Your task to perform on an android device: turn off smart reply in the gmail app Image 0: 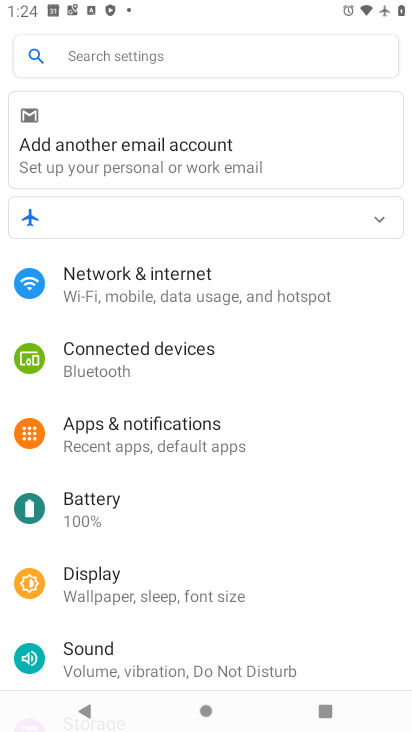
Step 0: drag from (218, 542) to (254, 247)
Your task to perform on an android device: turn off smart reply in the gmail app Image 1: 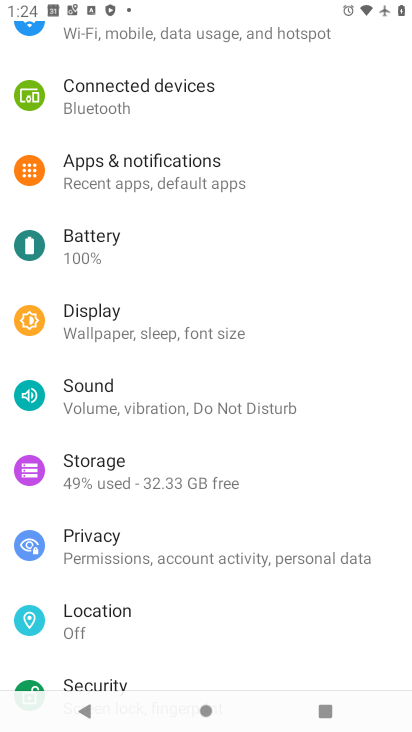
Step 1: press home button
Your task to perform on an android device: turn off smart reply in the gmail app Image 2: 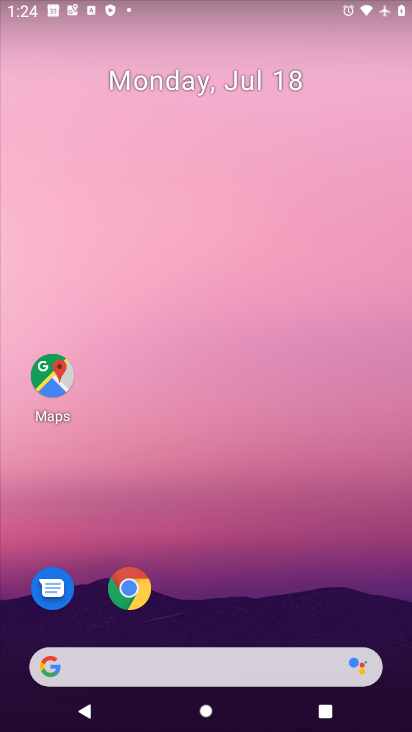
Step 2: drag from (219, 593) to (266, 258)
Your task to perform on an android device: turn off smart reply in the gmail app Image 3: 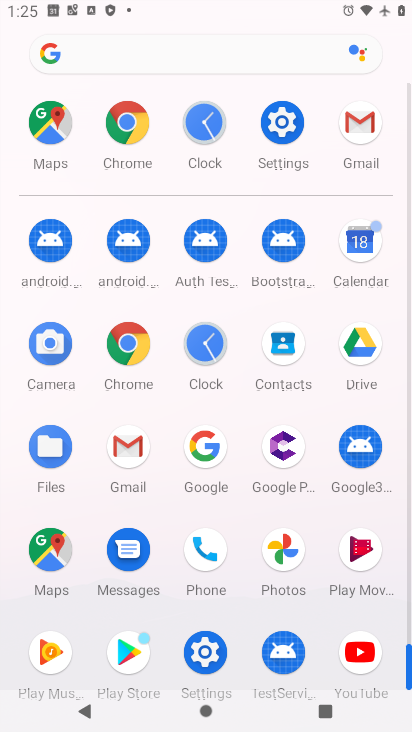
Step 3: click (134, 459)
Your task to perform on an android device: turn off smart reply in the gmail app Image 4: 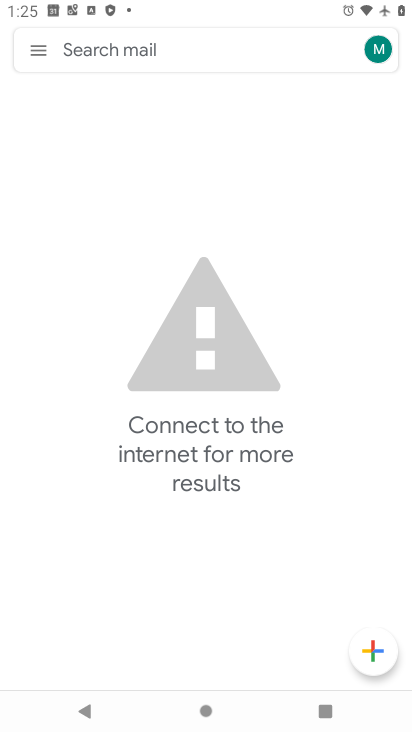
Step 4: click (42, 47)
Your task to perform on an android device: turn off smart reply in the gmail app Image 5: 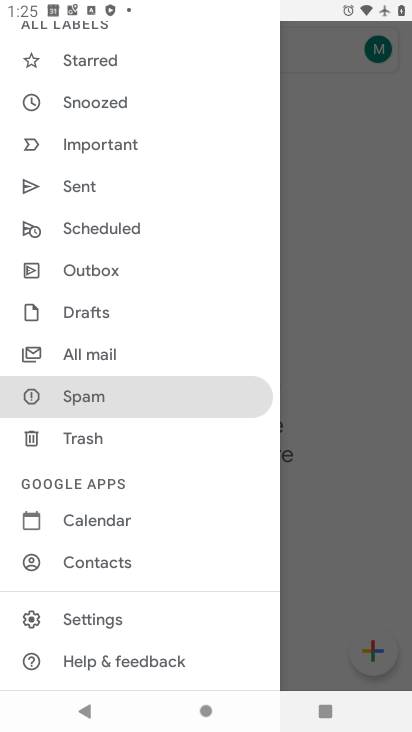
Step 5: click (96, 616)
Your task to perform on an android device: turn off smart reply in the gmail app Image 6: 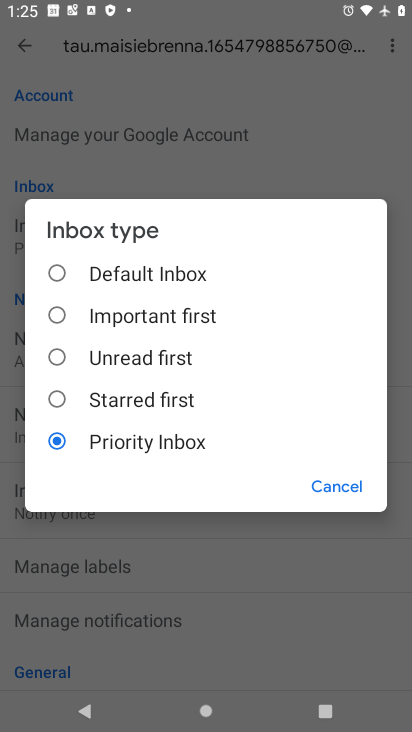
Step 6: click (336, 473)
Your task to perform on an android device: turn off smart reply in the gmail app Image 7: 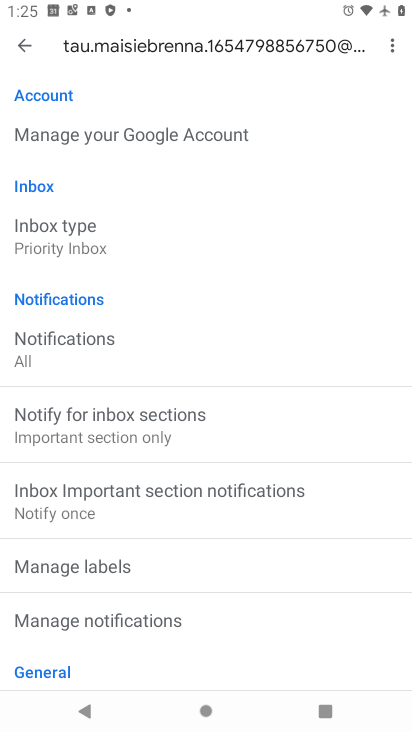
Step 7: drag from (269, 529) to (301, 164)
Your task to perform on an android device: turn off smart reply in the gmail app Image 8: 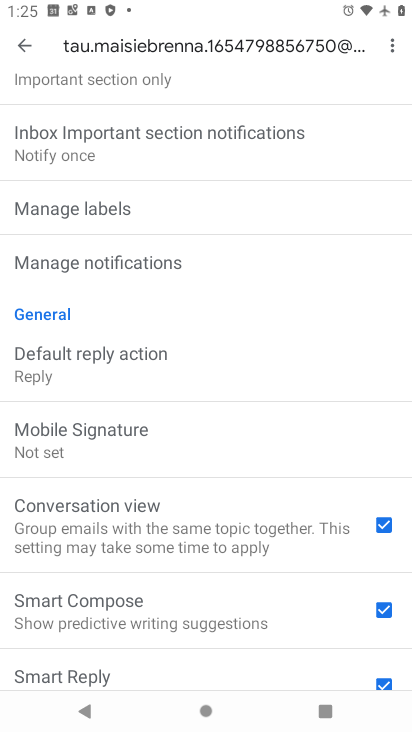
Step 8: drag from (172, 581) to (209, 377)
Your task to perform on an android device: turn off smart reply in the gmail app Image 9: 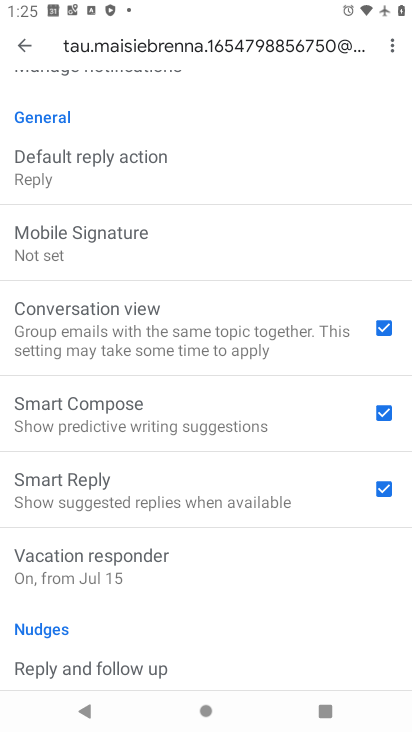
Step 9: click (390, 494)
Your task to perform on an android device: turn off smart reply in the gmail app Image 10: 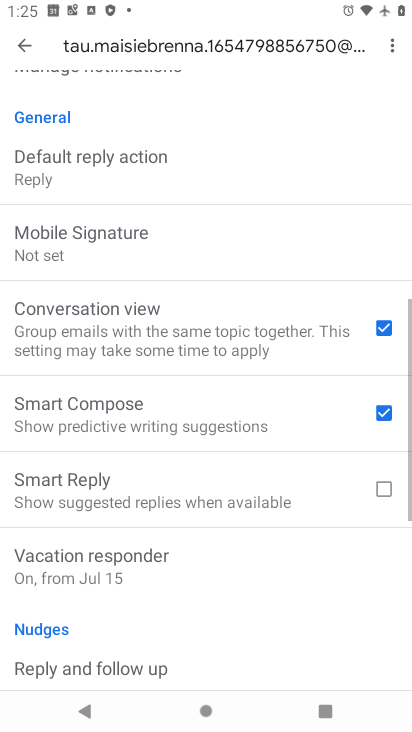
Step 10: task complete